Your task to perform on an android device: turn off translation in the chrome app Image 0: 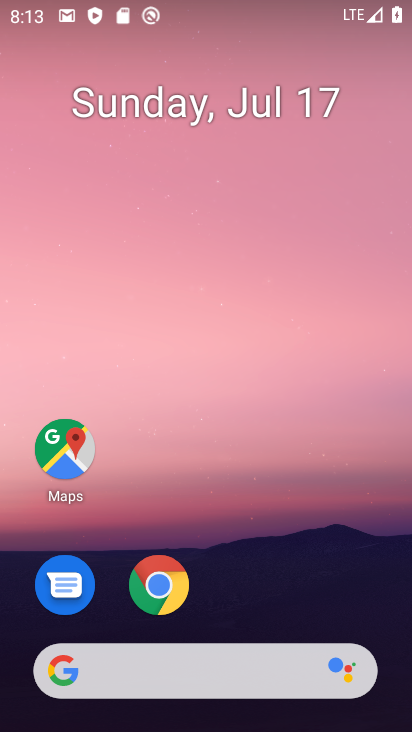
Step 0: click (130, 577)
Your task to perform on an android device: turn off translation in the chrome app Image 1: 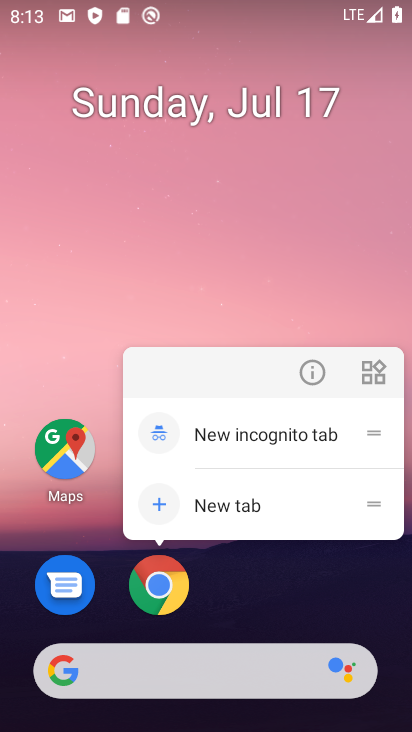
Step 1: click (160, 597)
Your task to perform on an android device: turn off translation in the chrome app Image 2: 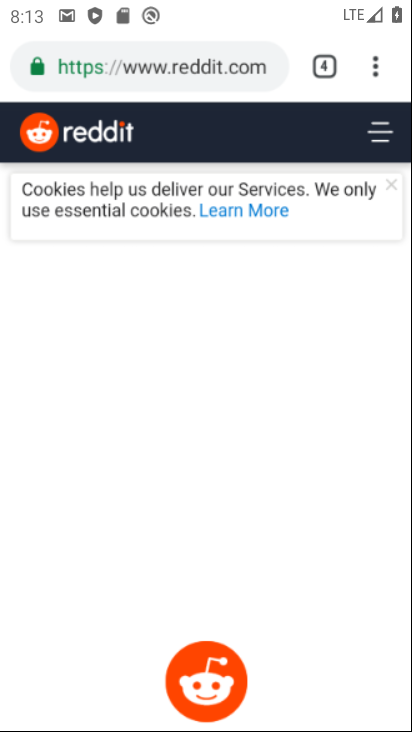
Step 2: drag from (376, 63) to (360, 143)
Your task to perform on an android device: turn off translation in the chrome app Image 3: 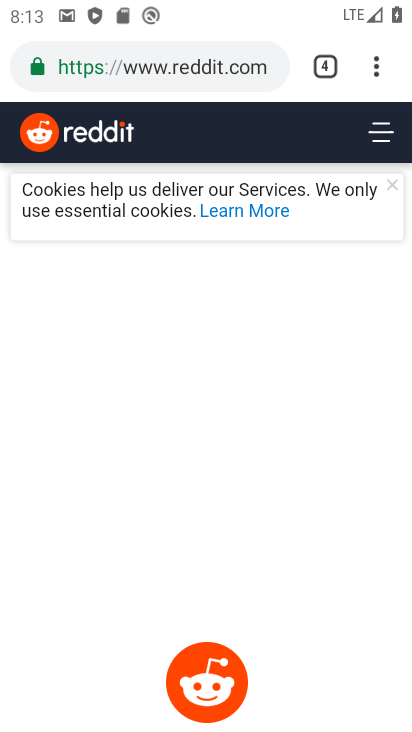
Step 3: click (376, 76)
Your task to perform on an android device: turn off translation in the chrome app Image 4: 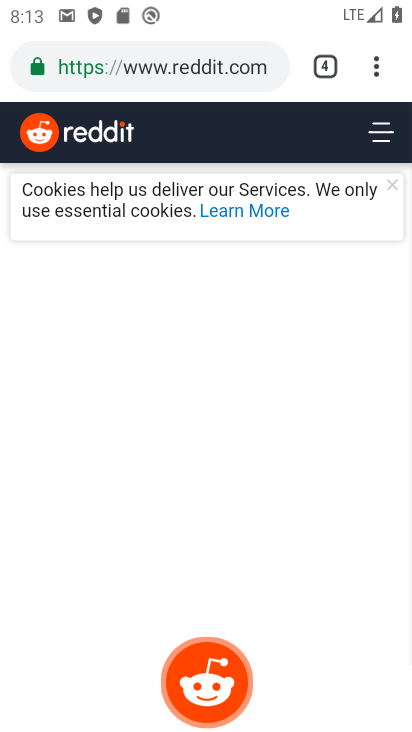
Step 4: drag from (369, 70) to (229, 585)
Your task to perform on an android device: turn off translation in the chrome app Image 5: 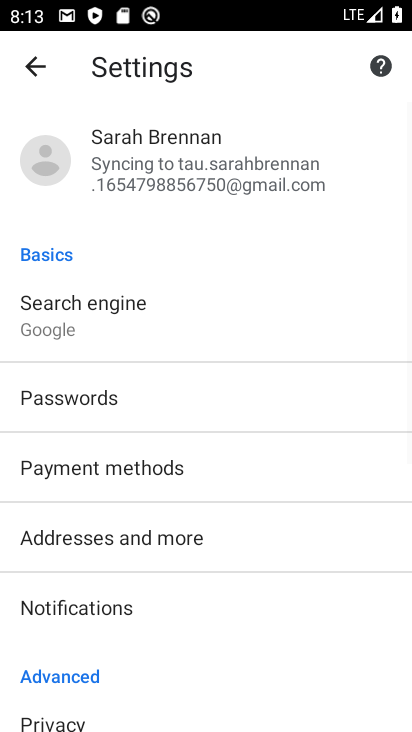
Step 5: drag from (163, 675) to (264, 301)
Your task to perform on an android device: turn off translation in the chrome app Image 6: 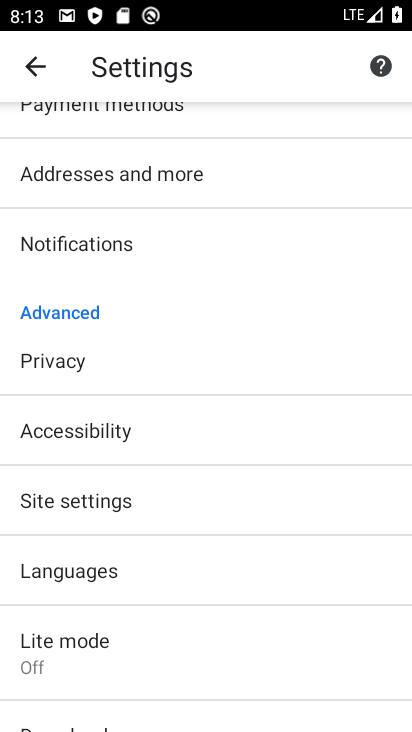
Step 6: click (142, 579)
Your task to perform on an android device: turn off translation in the chrome app Image 7: 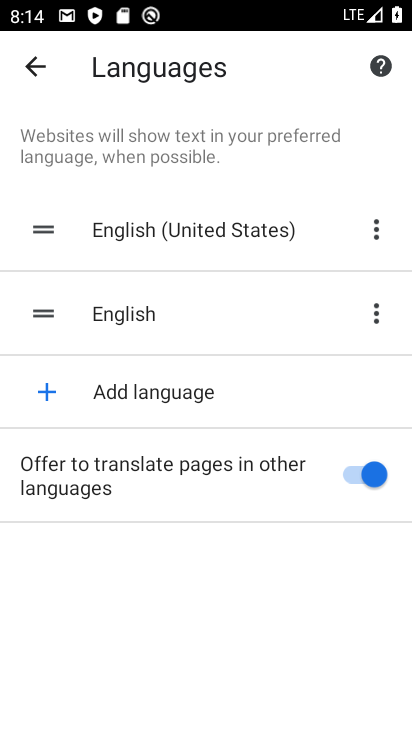
Step 7: click (354, 478)
Your task to perform on an android device: turn off translation in the chrome app Image 8: 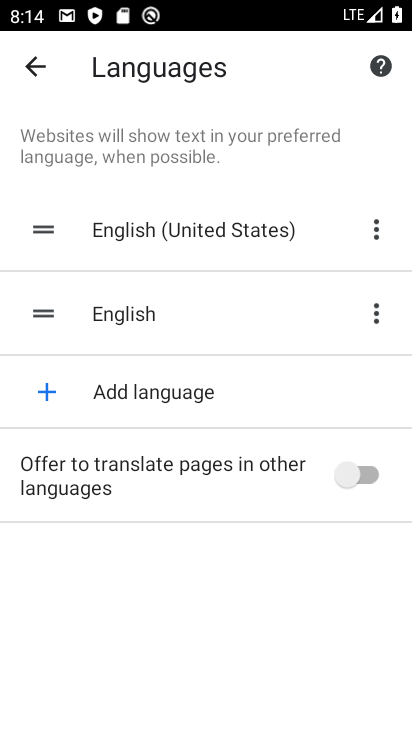
Step 8: task complete